Your task to perform on an android device: turn off translation in the chrome app Image 0: 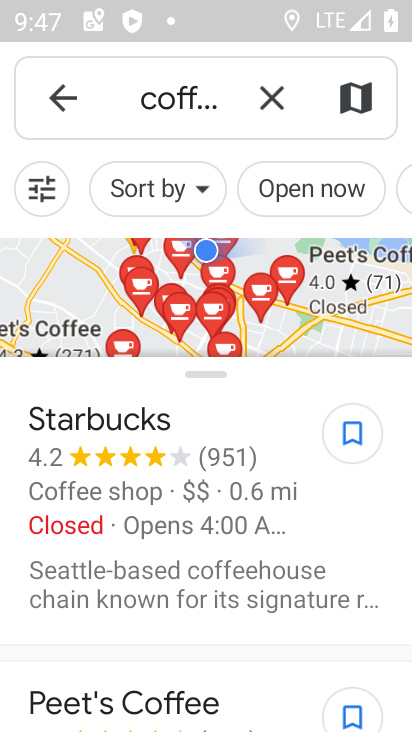
Step 0: press home button
Your task to perform on an android device: turn off translation in the chrome app Image 1: 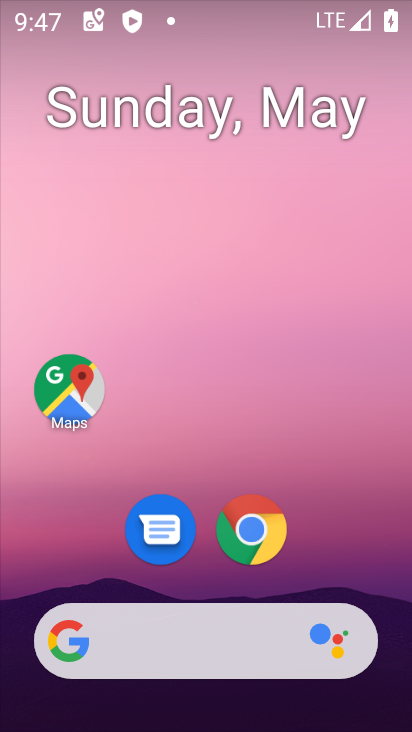
Step 1: click (250, 533)
Your task to perform on an android device: turn off translation in the chrome app Image 2: 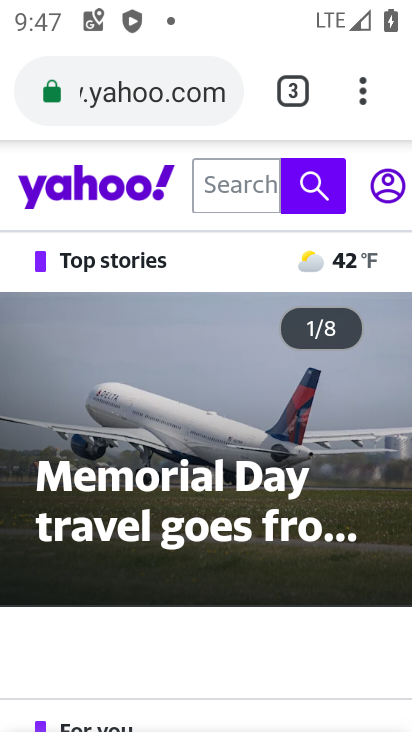
Step 2: click (377, 100)
Your task to perform on an android device: turn off translation in the chrome app Image 3: 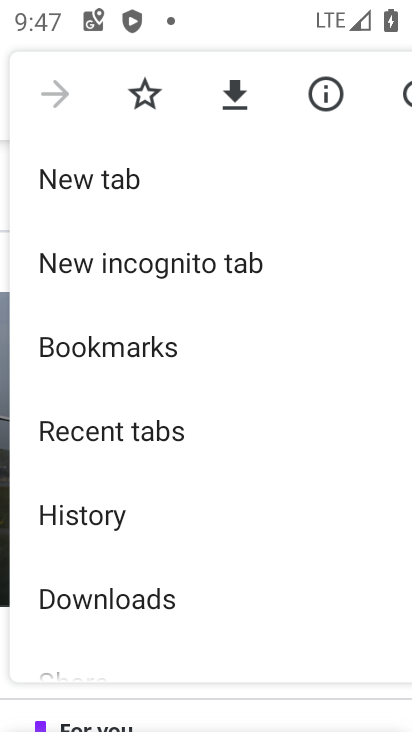
Step 3: drag from (170, 561) to (181, 351)
Your task to perform on an android device: turn off translation in the chrome app Image 4: 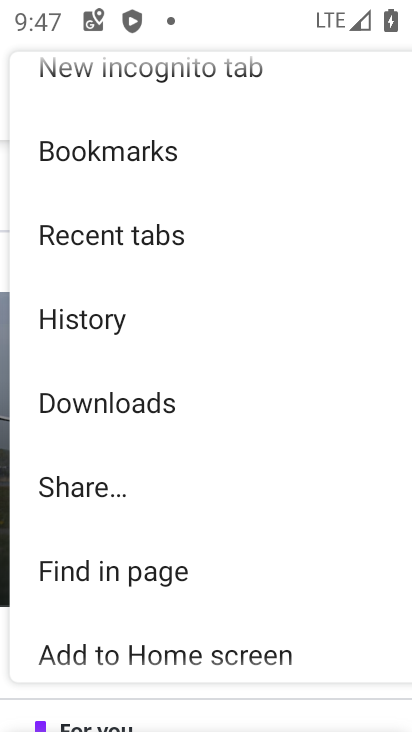
Step 4: drag from (175, 592) to (187, 403)
Your task to perform on an android device: turn off translation in the chrome app Image 5: 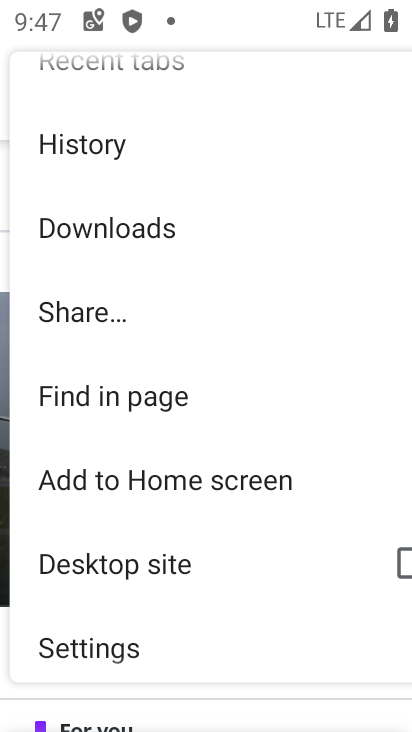
Step 5: click (175, 657)
Your task to perform on an android device: turn off translation in the chrome app Image 6: 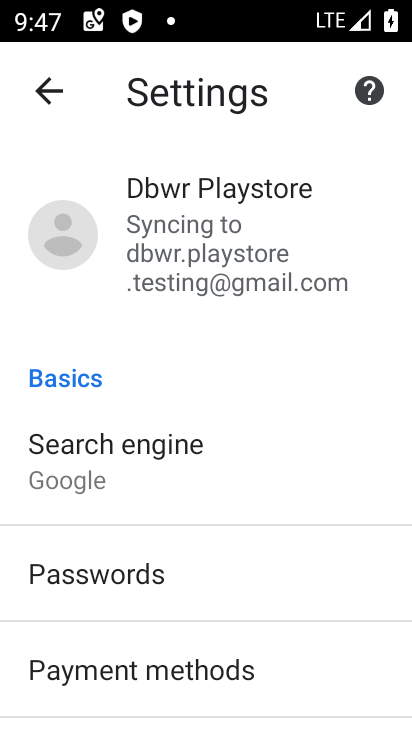
Step 6: task complete